Your task to perform on an android device: What is the recent news? Image 0: 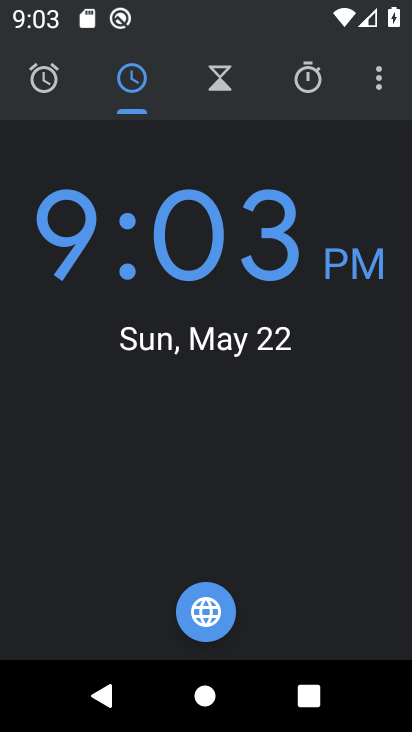
Step 0: press home button
Your task to perform on an android device: What is the recent news? Image 1: 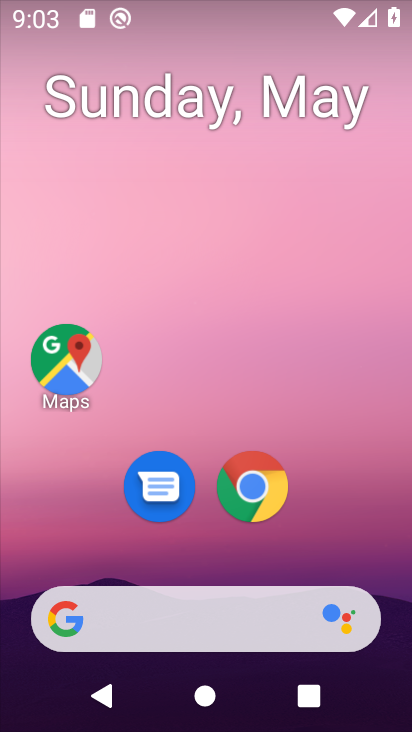
Step 1: task complete